Your task to perform on an android device: Open the map Image 0: 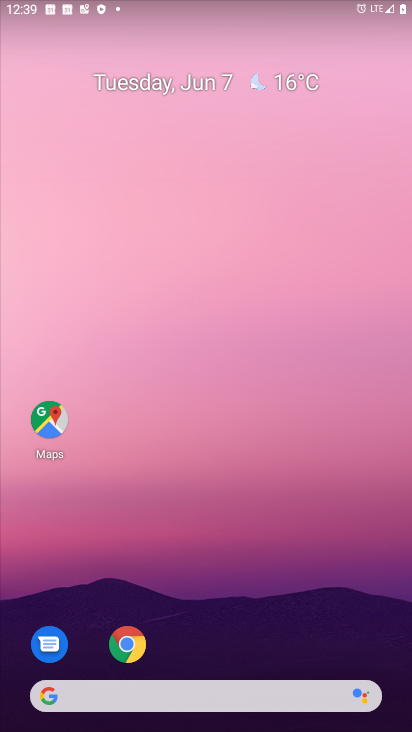
Step 0: click (63, 410)
Your task to perform on an android device: Open the map Image 1: 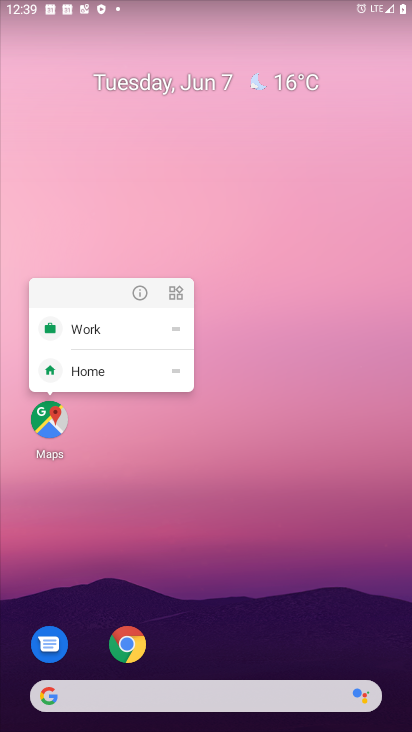
Step 1: click (57, 412)
Your task to perform on an android device: Open the map Image 2: 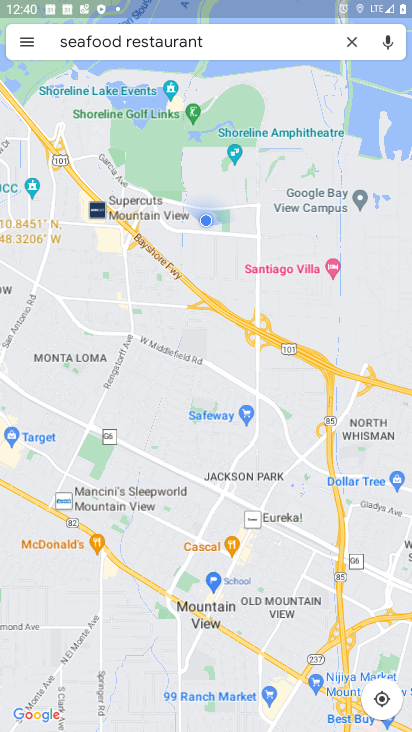
Step 2: task complete